Your task to perform on an android device: turn on wifi Image 0: 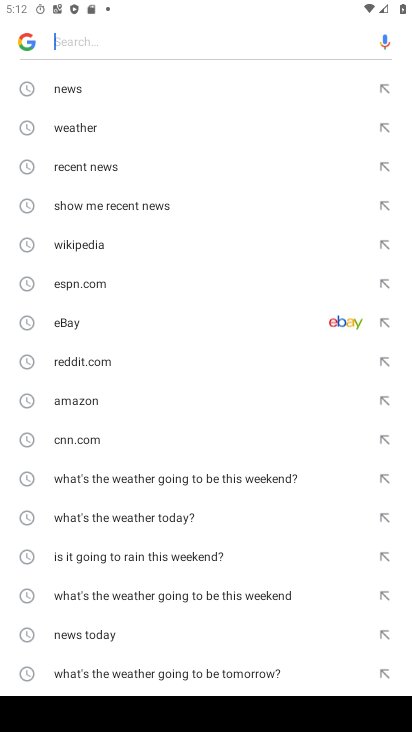
Step 0: press home button
Your task to perform on an android device: turn on wifi Image 1: 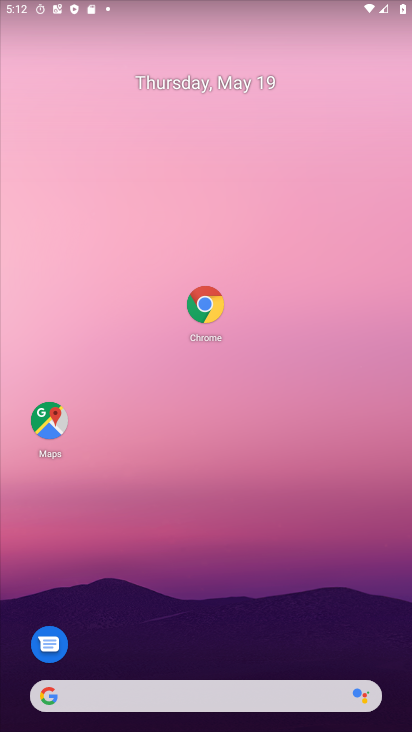
Step 1: drag from (197, 683) to (184, 365)
Your task to perform on an android device: turn on wifi Image 2: 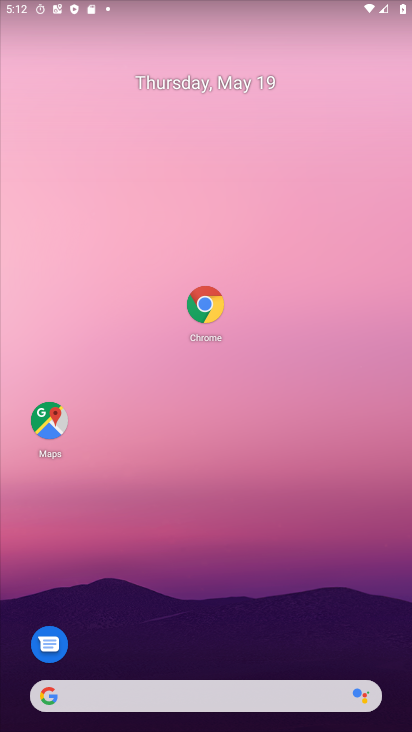
Step 2: drag from (183, 643) to (143, 303)
Your task to perform on an android device: turn on wifi Image 3: 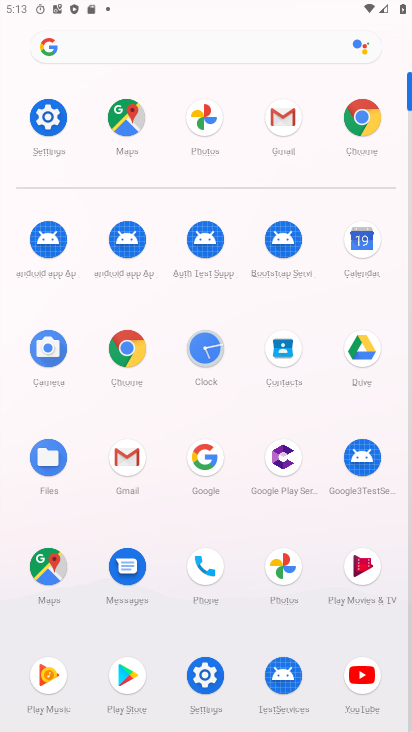
Step 3: click (49, 116)
Your task to perform on an android device: turn on wifi Image 4: 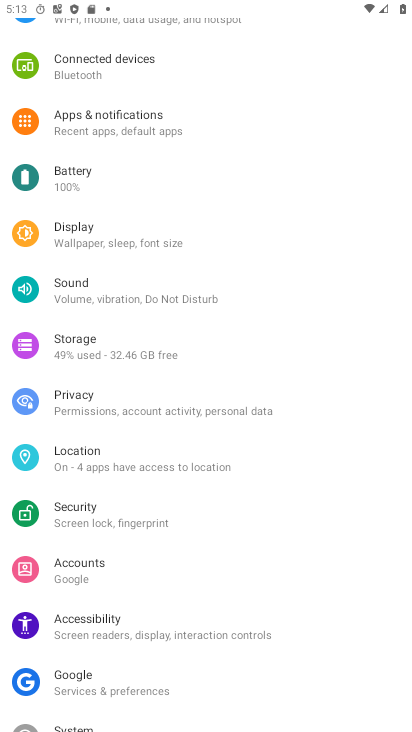
Step 4: drag from (116, 53) to (209, 438)
Your task to perform on an android device: turn on wifi Image 5: 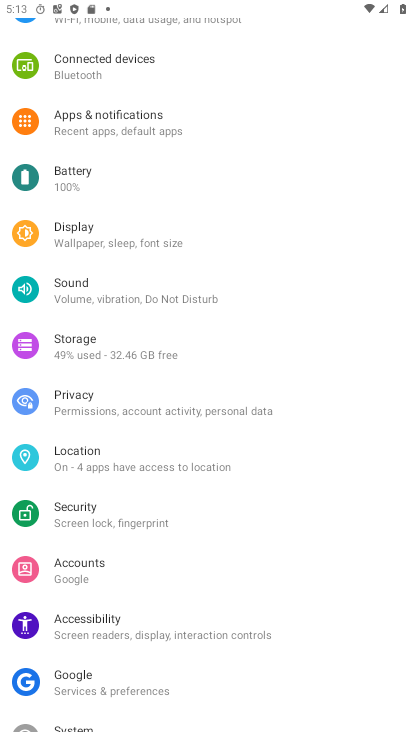
Step 5: drag from (156, 42) to (219, 533)
Your task to perform on an android device: turn on wifi Image 6: 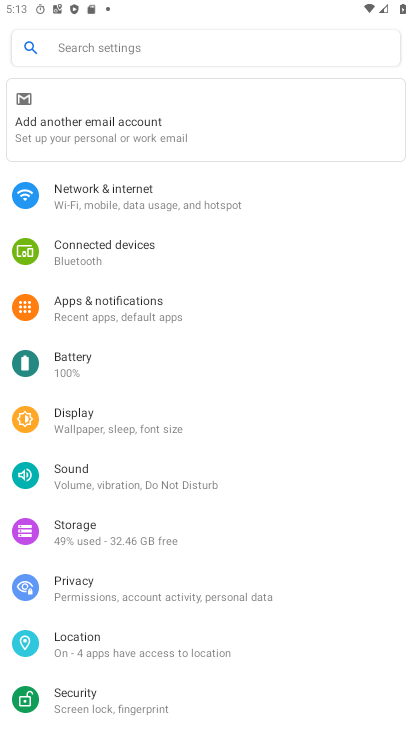
Step 6: click (124, 199)
Your task to perform on an android device: turn on wifi Image 7: 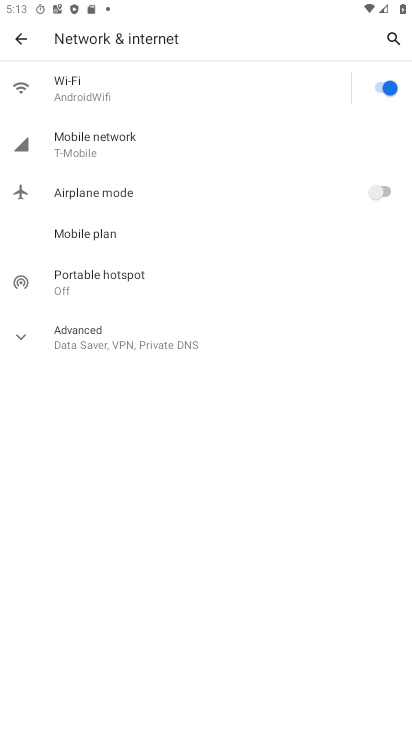
Step 7: task complete